Your task to perform on an android device: delete the emails in spam in the gmail app Image 0: 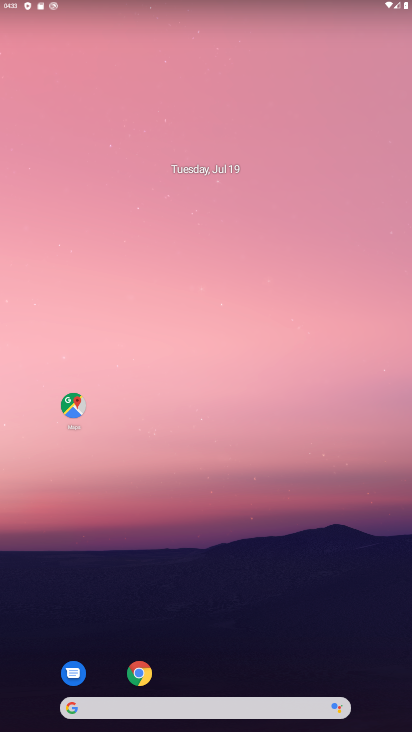
Step 0: drag from (243, 689) to (45, 1)
Your task to perform on an android device: delete the emails in spam in the gmail app Image 1: 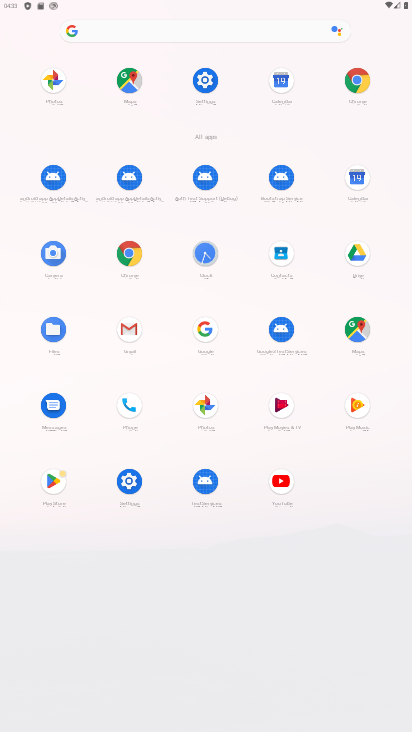
Step 1: click (138, 330)
Your task to perform on an android device: delete the emails in spam in the gmail app Image 2: 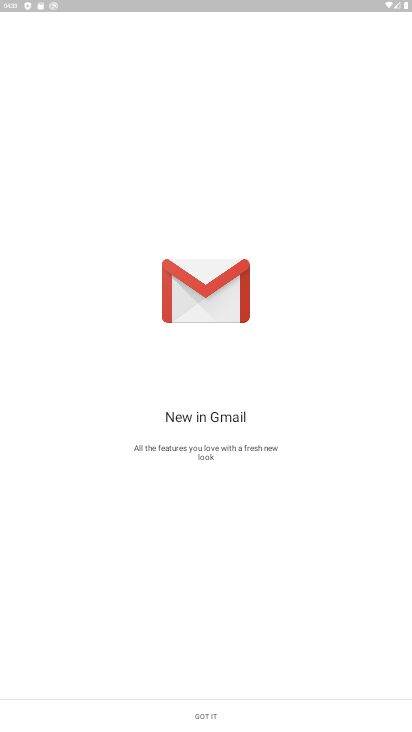
Step 2: click (240, 714)
Your task to perform on an android device: delete the emails in spam in the gmail app Image 3: 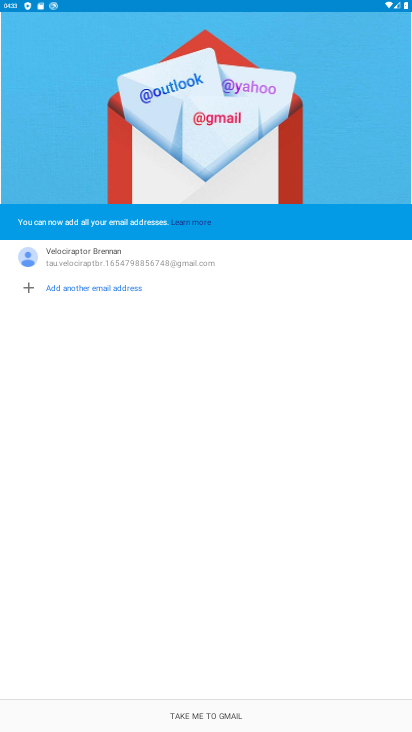
Step 3: click (196, 711)
Your task to perform on an android device: delete the emails in spam in the gmail app Image 4: 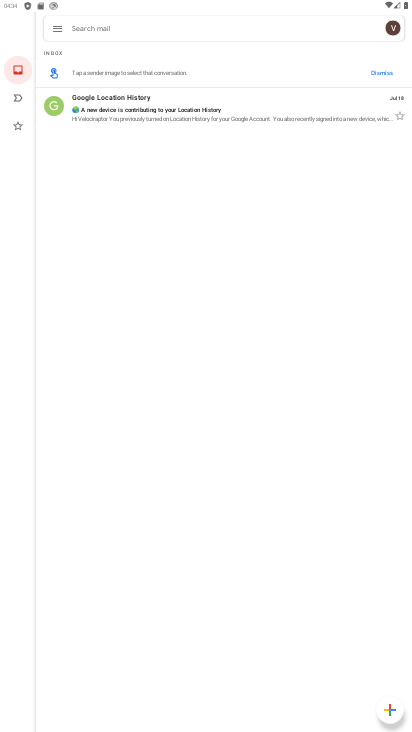
Step 4: click (58, 30)
Your task to perform on an android device: delete the emails in spam in the gmail app Image 5: 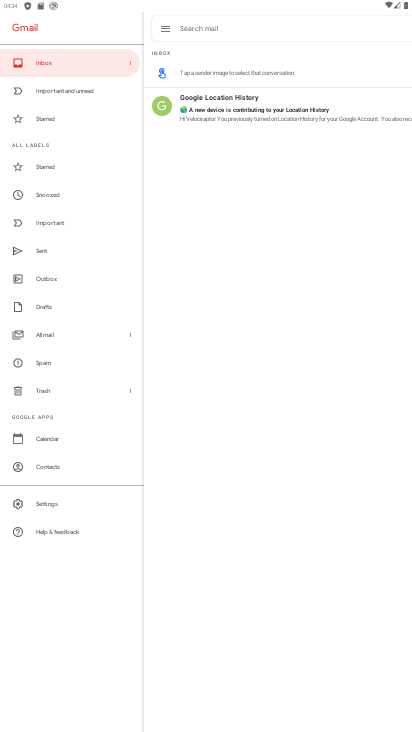
Step 5: click (45, 365)
Your task to perform on an android device: delete the emails in spam in the gmail app Image 6: 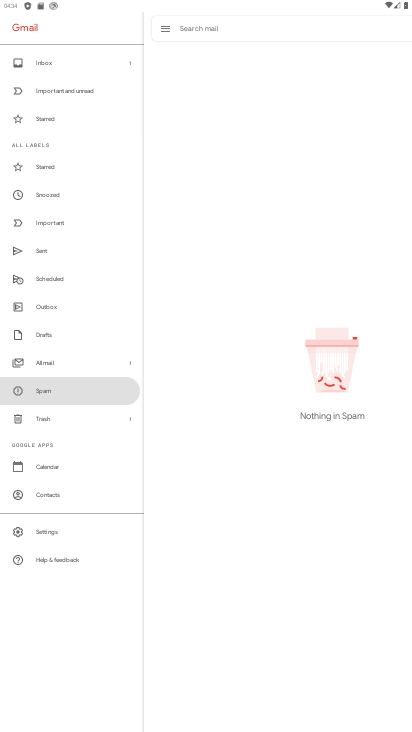
Step 6: task complete